Your task to perform on an android device: turn on notifications settings in the gmail app Image 0: 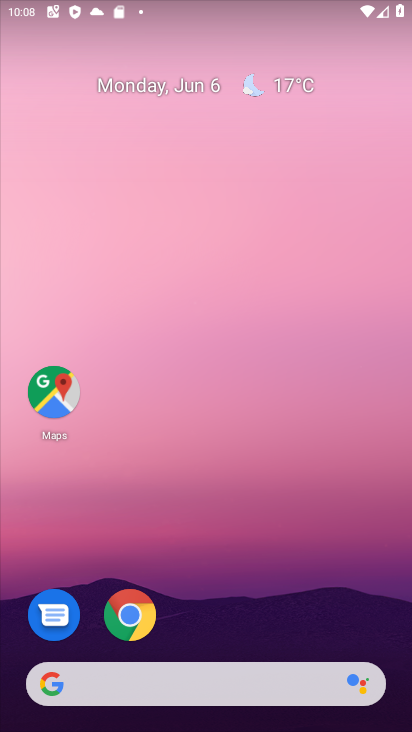
Step 0: drag from (213, 606) to (284, 98)
Your task to perform on an android device: turn on notifications settings in the gmail app Image 1: 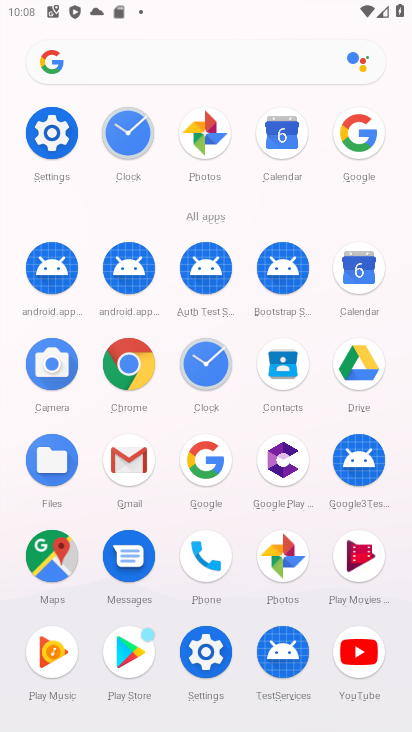
Step 1: click (130, 451)
Your task to perform on an android device: turn on notifications settings in the gmail app Image 2: 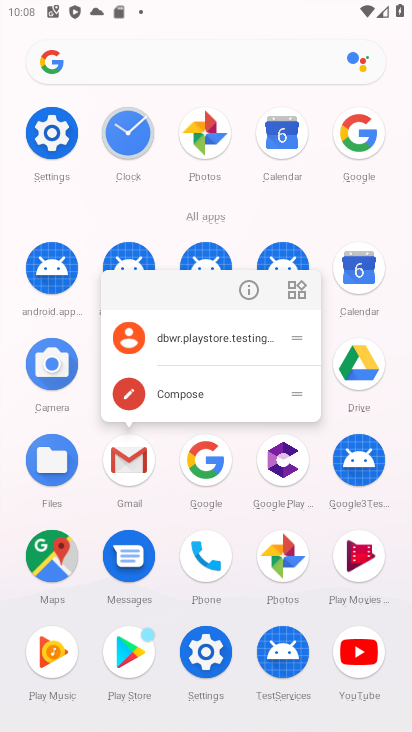
Step 2: click (247, 286)
Your task to perform on an android device: turn on notifications settings in the gmail app Image 3: 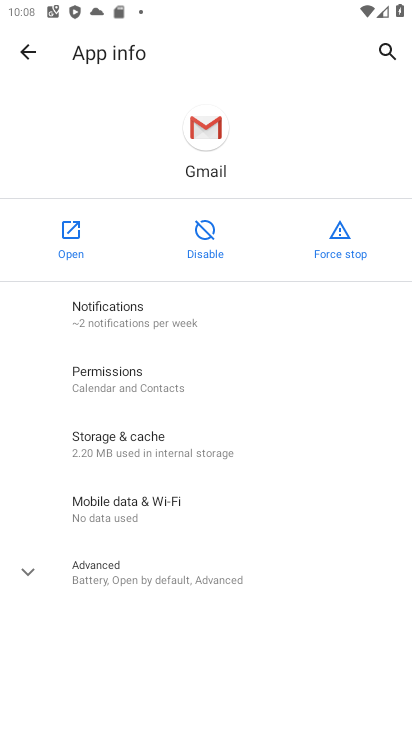
Step 3: click (195, 302)
Your task to perform on an android device: turn on notifications settings in the gmail app Image 4: 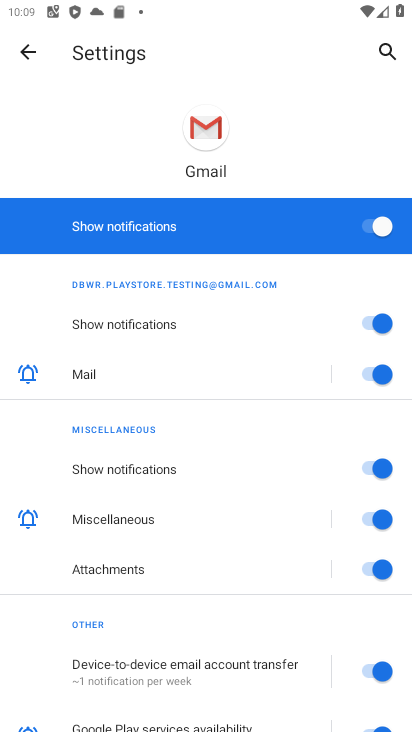
Step 4: task complete